Your task to perform on an android device: toggle sleep mode Image 0: 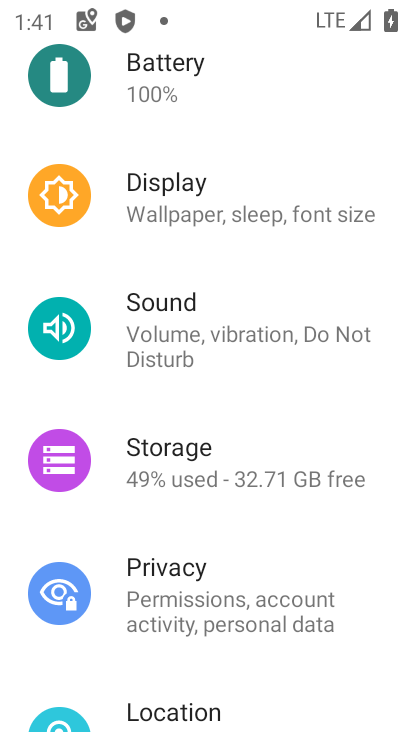
Step 0: press home button
Your task to perform on an android device: toggle sleep mode Image 1: 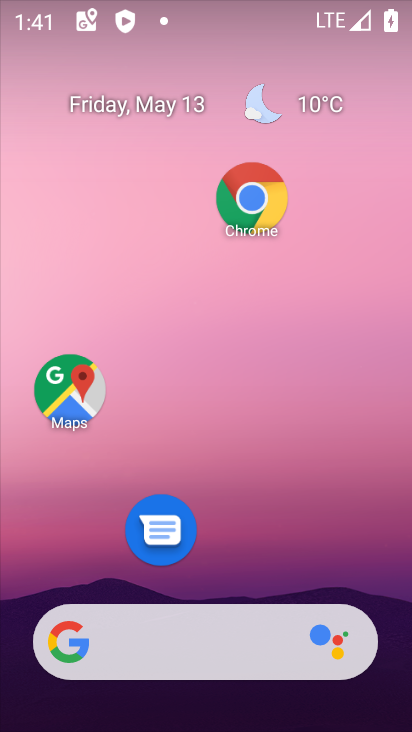
Step 1: drag from (214, 573) to (151, 110)
Your task to perform on an android device: toggle sleep mode Image 2: 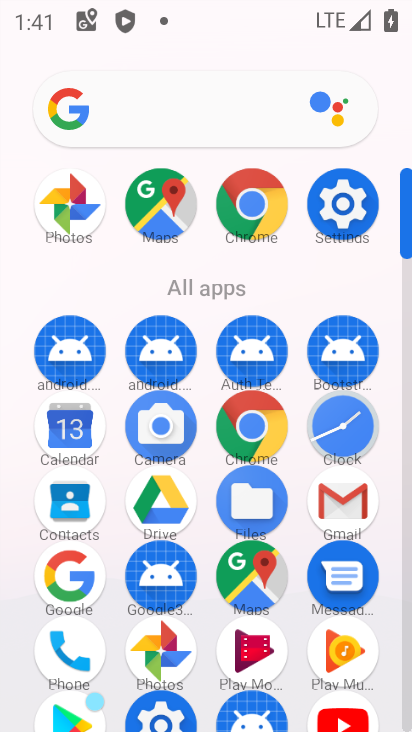
Step 2: click (350, 224)
Your task to perform on an android device: toggle sleep mode Image 3: 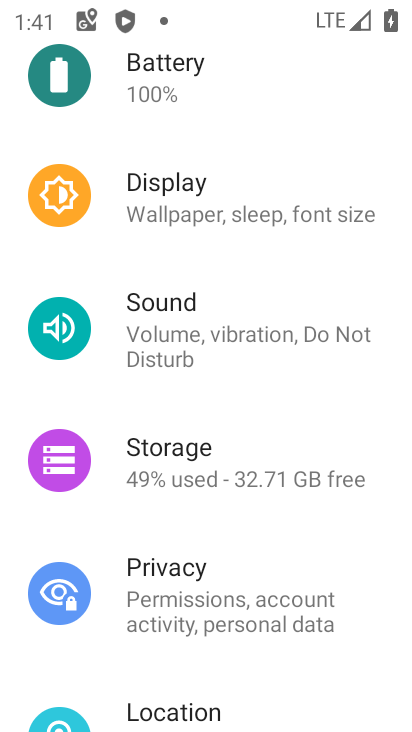
Step 3: click (199, 209)
Your task to perform on an android device: toggle sleep mode Image 4: 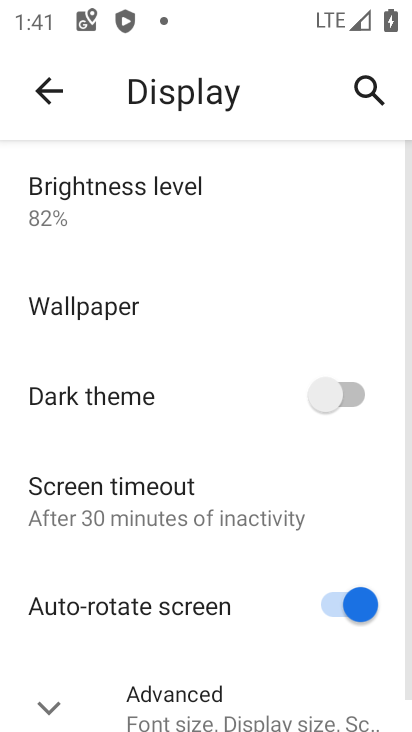
Step 4: drag from (132, 639) to (62, 115)
Your task to perform on an android device: toggle sleep mode Image 5: 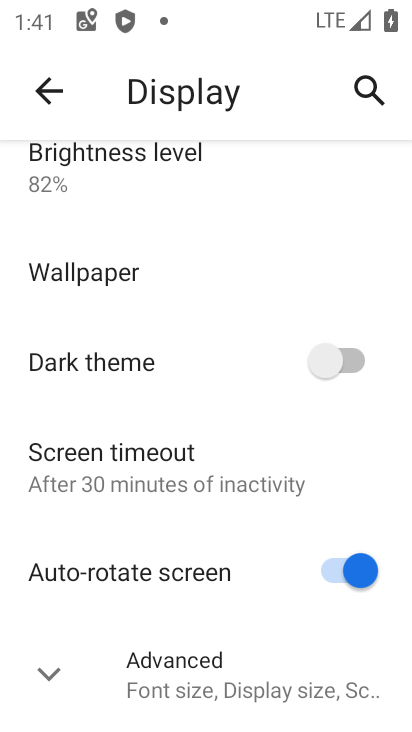
Step 5: click (178, 659)
Your task to perform on an android device: toggle sleep mode Image 6: 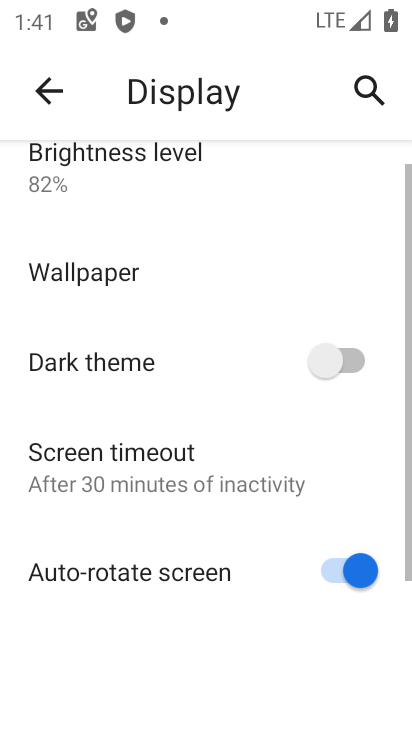
Step 6: task complete